Your task to perform on an android device: How much does the TCL TV cost? Image 0: 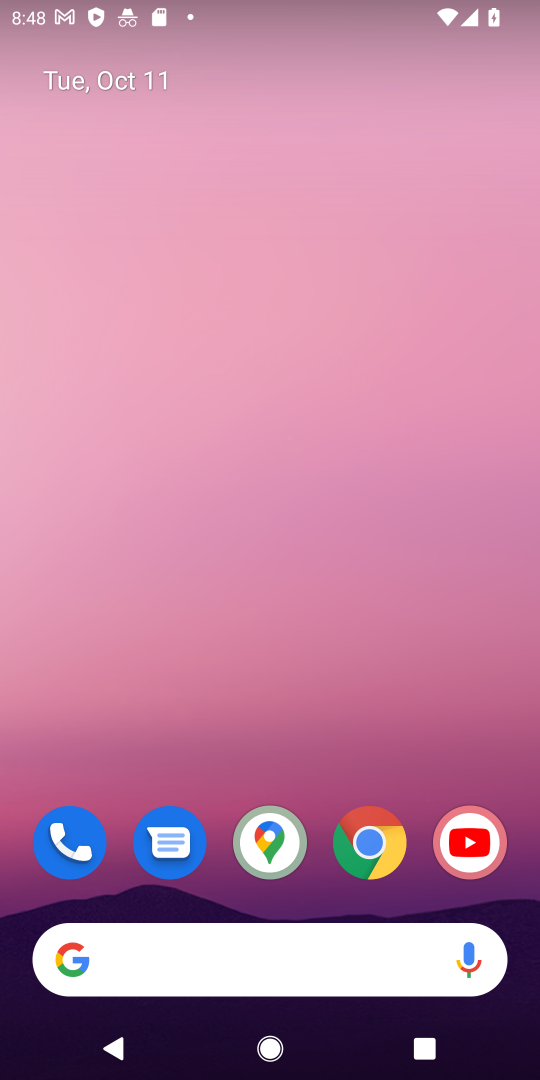
Step 0: click (255, 967)
Your task to perform on an android device: How much does the TCL TV cost? Image 1: 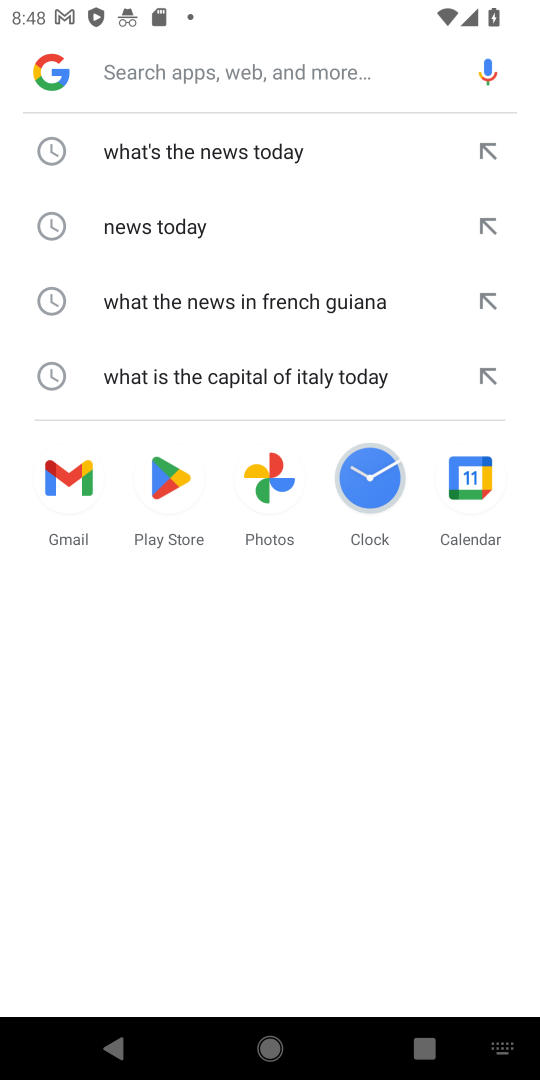
Step 1: type "How much does the TCL TV cost?"
Your task to perform on an android device: How much does the TCL TV cost? Image 2: 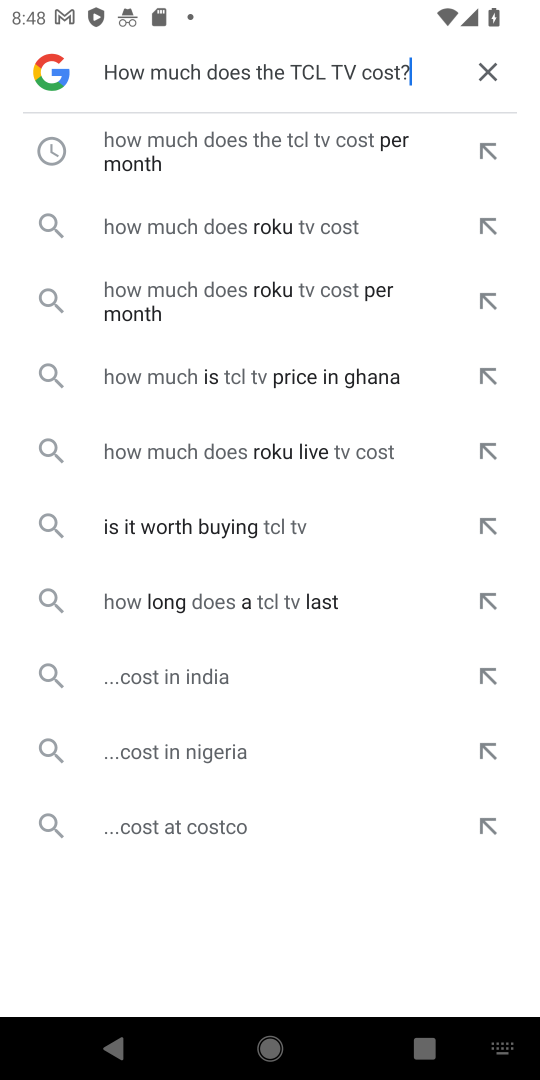
Step 2: click (325, 382)
Your task to perform on an android device: How much does the TCL TV cost? Image 3: 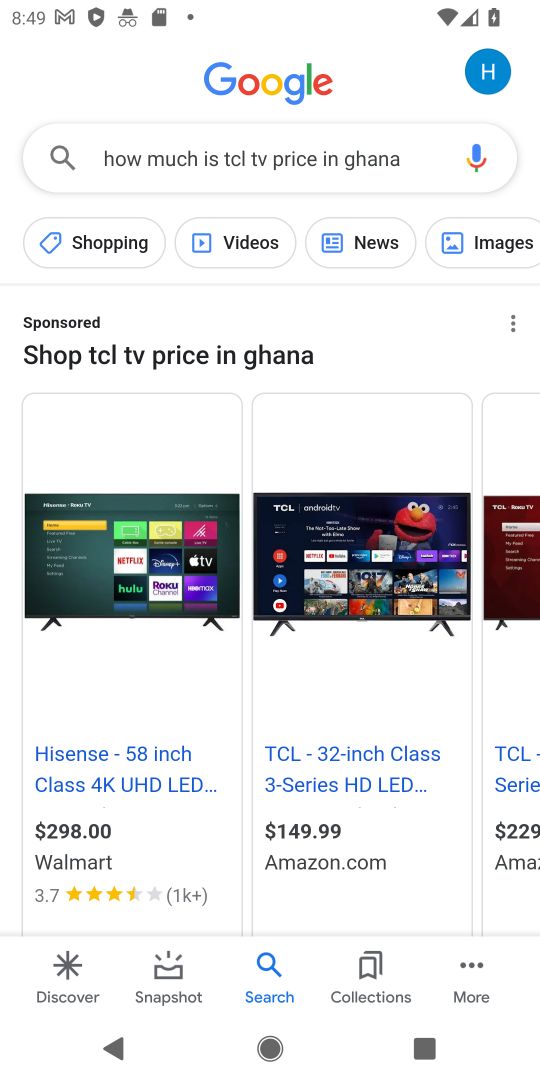
Step 3: task complete